Your task to perform on an android device: turn on improve location accuracy Image 0: 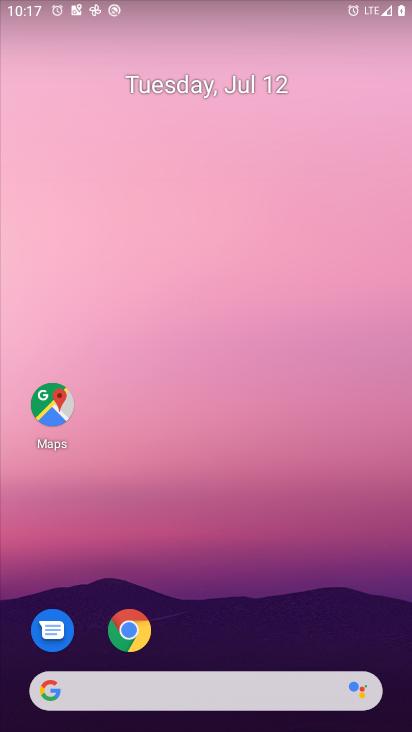
Step 0: press home button
Your task to perform on an android device: turn on improve location accuracy Image 1: 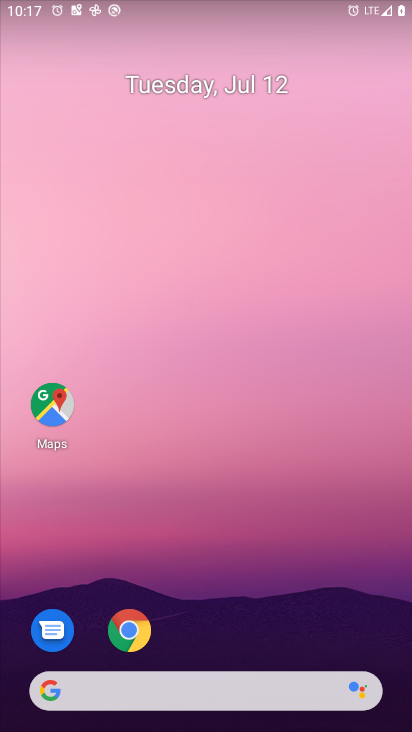
Step 1: drag from (325, 624) to (327, 116)
Your task to perform on an android device: turn on improve location accuracy Image 2: 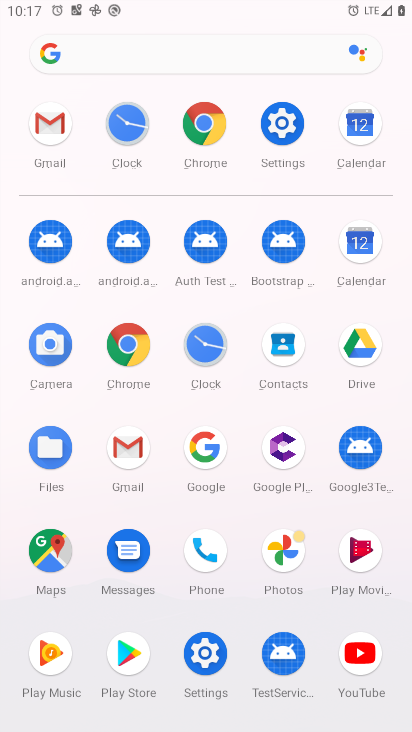
Step 2: click (288, 121)
Your task to perform on an android device: turn on improve location accuracy Image 3: 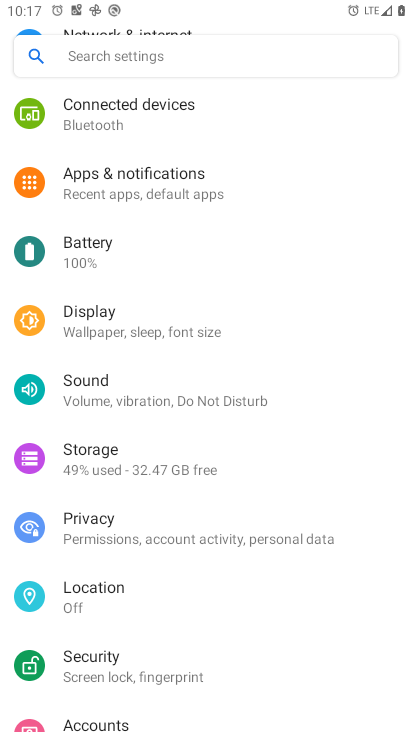
Step 3: click (132, 594)
Your task to perform on an android device: turn on improve location accuracy Image 4: 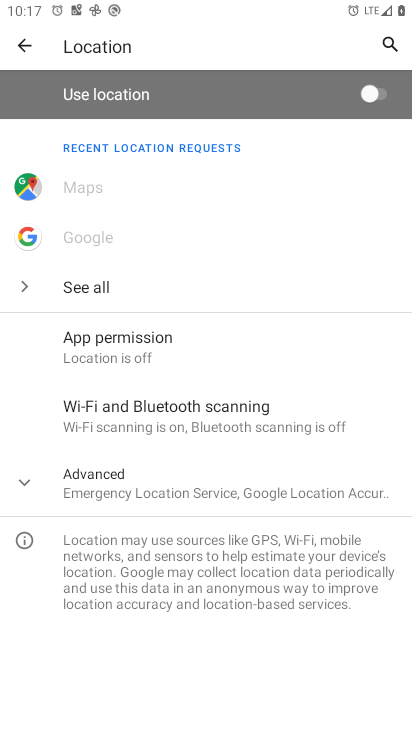
Step 4: click (23, 481)
Your task to perform on an android device: turn on improve location accuracy Image 5: 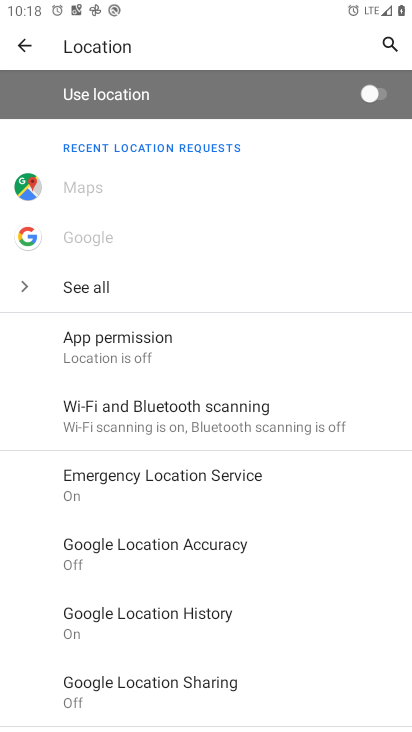
Step 5: click (174, 550)
Your task to perform on an android device: turn on improve location accuracy Image 6: 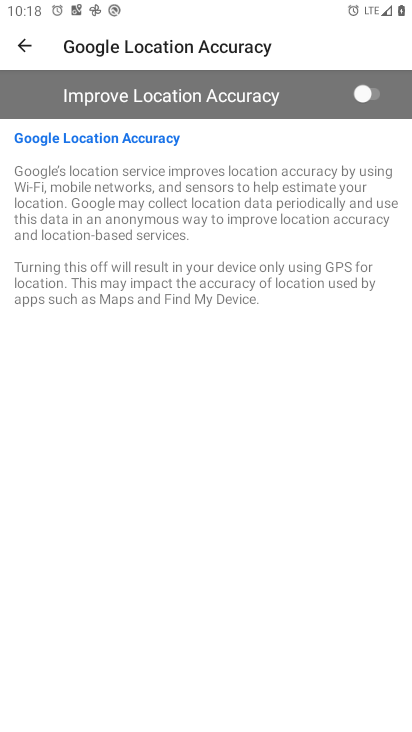
Step 6: click (367, 91)
Your task to perform on an android device: turn on improve location accuracy Image 7: 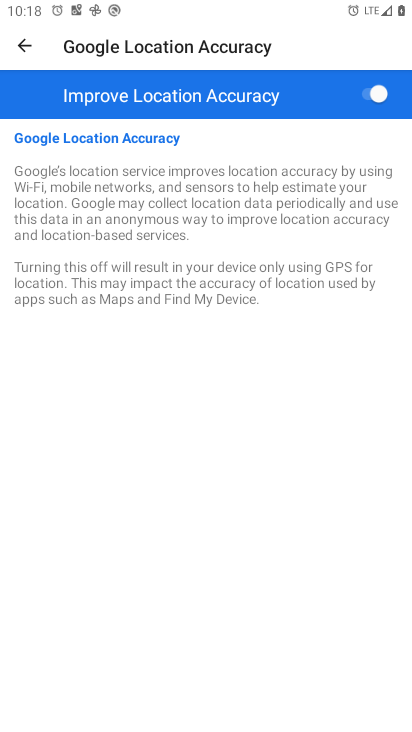
Step 7: task complete